Your task to perform on an android device: manage bookmarks in the chrome app Image 0: 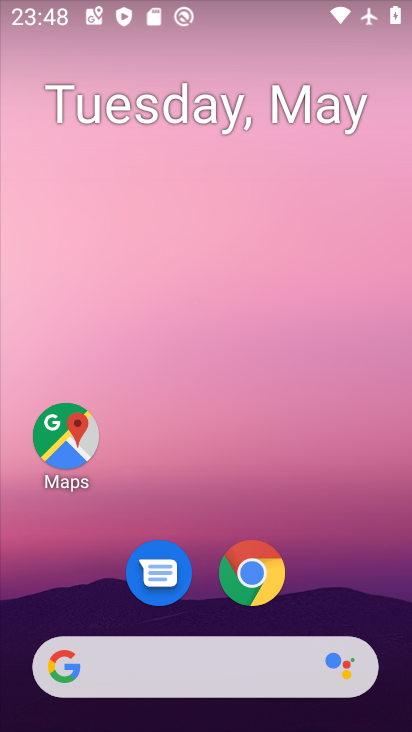
Step 0: click (254, 563)
Your task to perform on an android device: manage bookmarks in the chrome app Image 1: 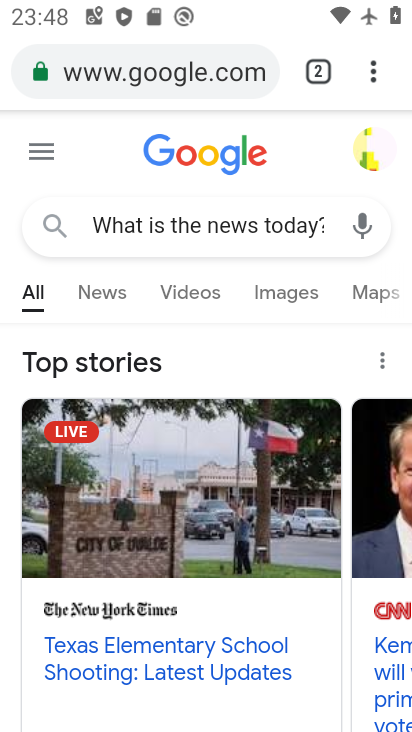
Step 1: click (383, 74)
Your task to perform on an android device: manage bookmarks in the chrome app Image 2: 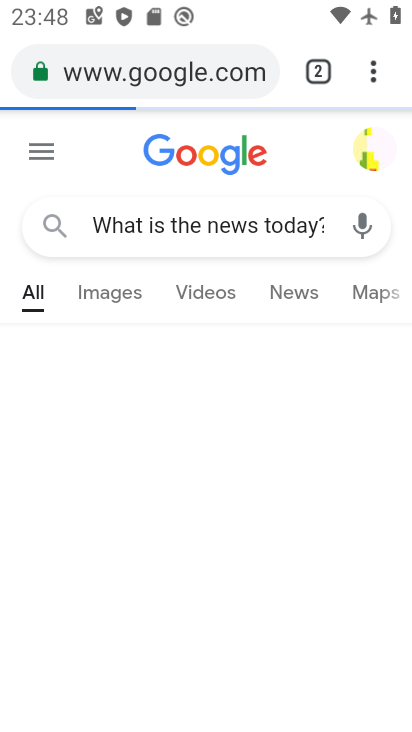
Step 2: click (383, 74)
Your task to perform on an android device: manage bookmarks in the chrome app Image 3: 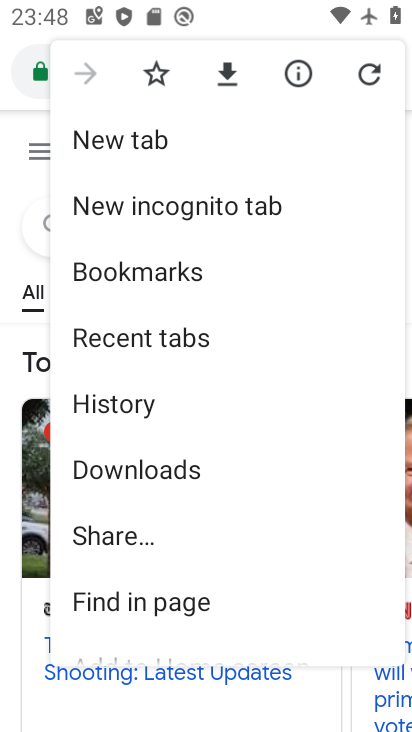
Step 3: click (176, 290)
Your task to perform on an android device: manage bookmarks in the chrome app Image 4: 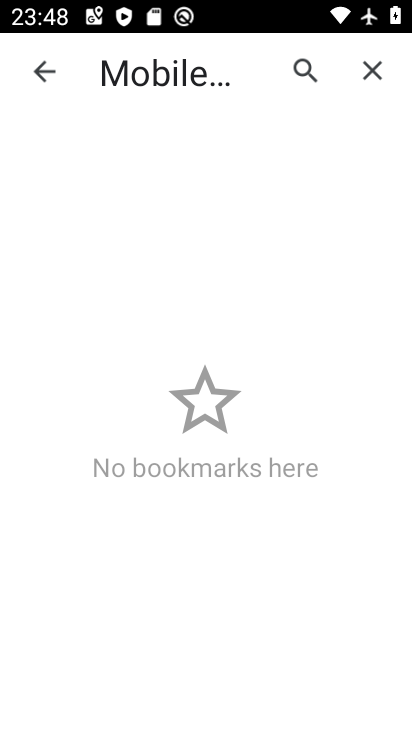
Step 4: task complete